Your task to perform on an android device: Is it going to rain tomorrow? Image 0: 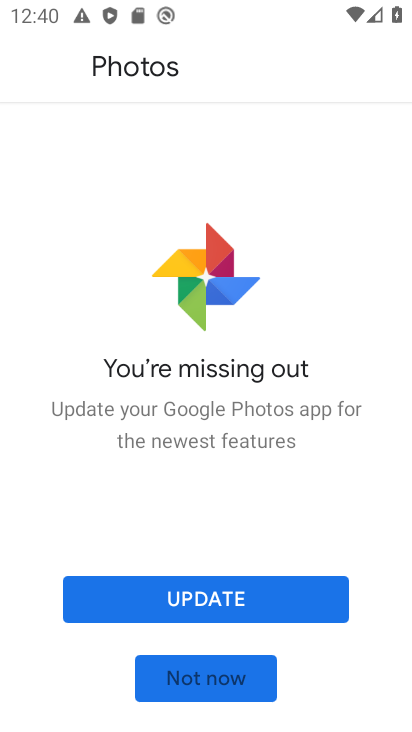
Step 0: click (228, 677)
Your task to perform on an android device: Is it going to rain tomorrow? Image 1: 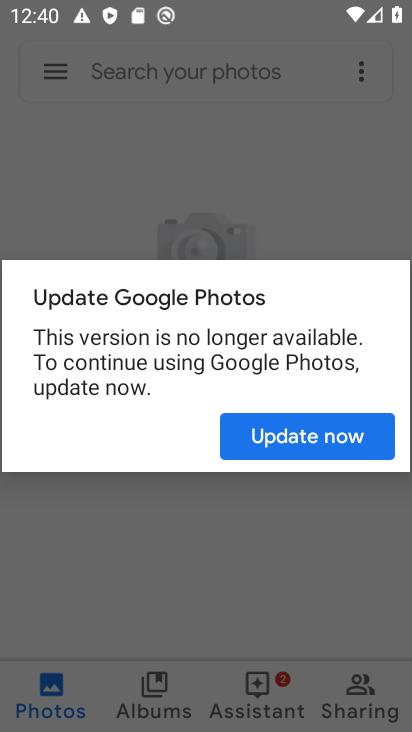
Step 1: click (366, 443)
Your task to perform on an android device: Is it going to rain tomorrow? Image 2: 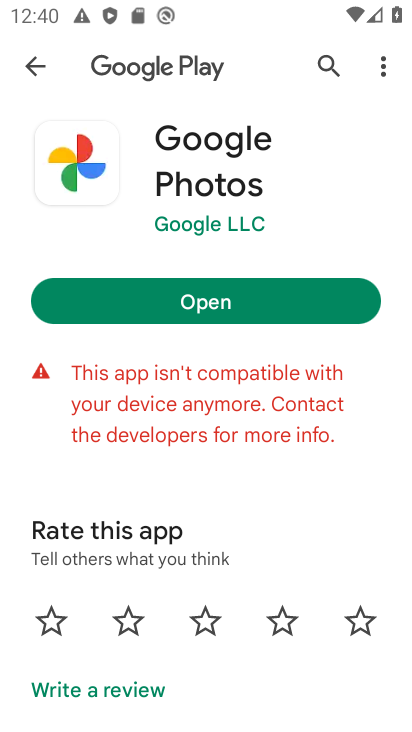
Step 2: press home button
Your task to perform on an android device: Is it going to rain tomorrow? Image 3: 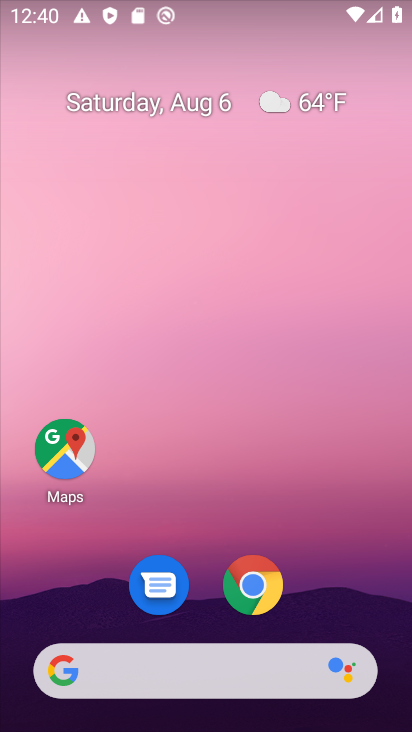
Step 3: click (201, 666)
Your task to perform on an android device: Is it going to rain tomorrow? Image 4: 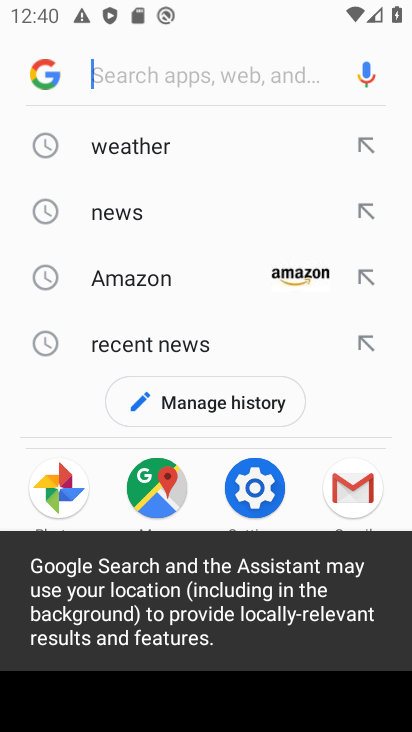
Step 4: click (149, 145)
Your task to perform on an android device: Is it going to rain tomorrow? Image 5: 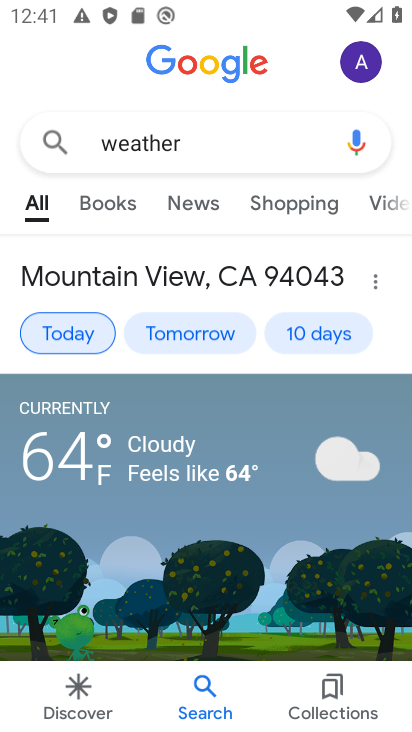
Step 5: click (182, 333)
Your task to perform on an android device: Is it going to rain tomorrow? Image 6: 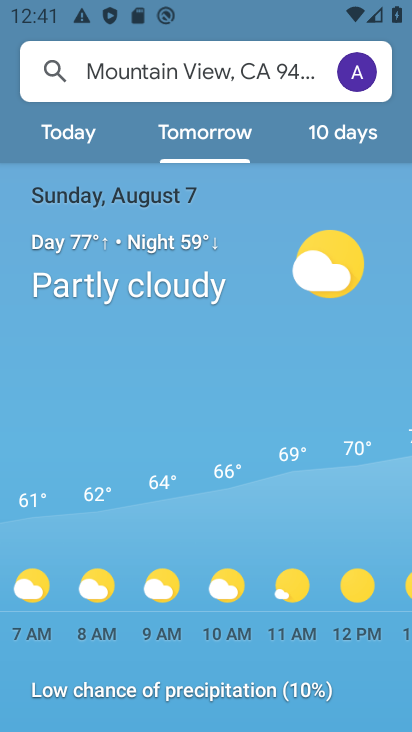
Step 6: task complete